Your task to perform on an android device: Turn on the flashlight Image 0: 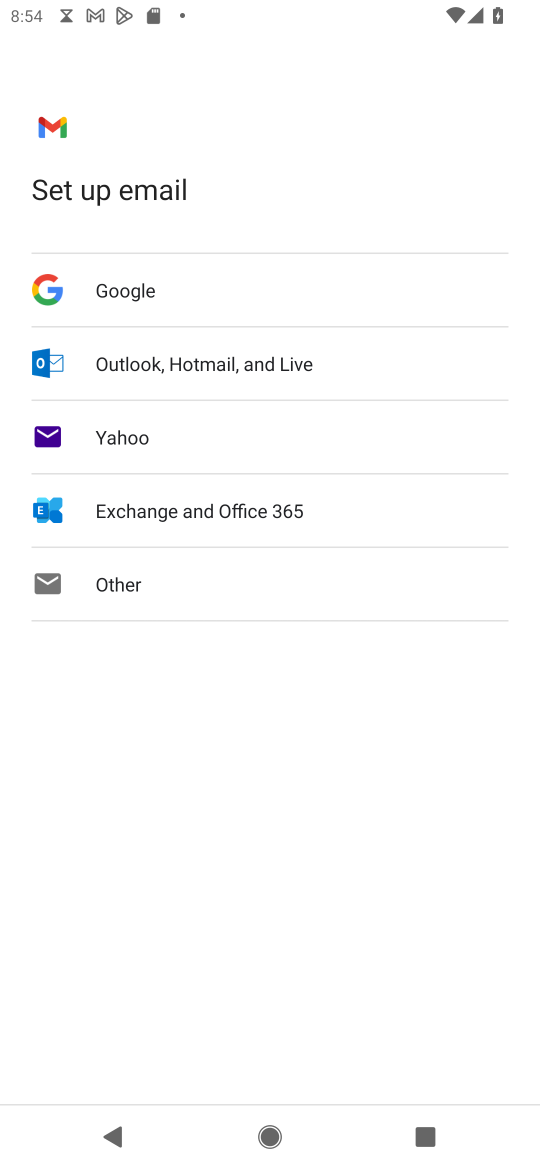
Step 0: press home button
Your task to perform on an android device: Turn on the flashlight Image 1: 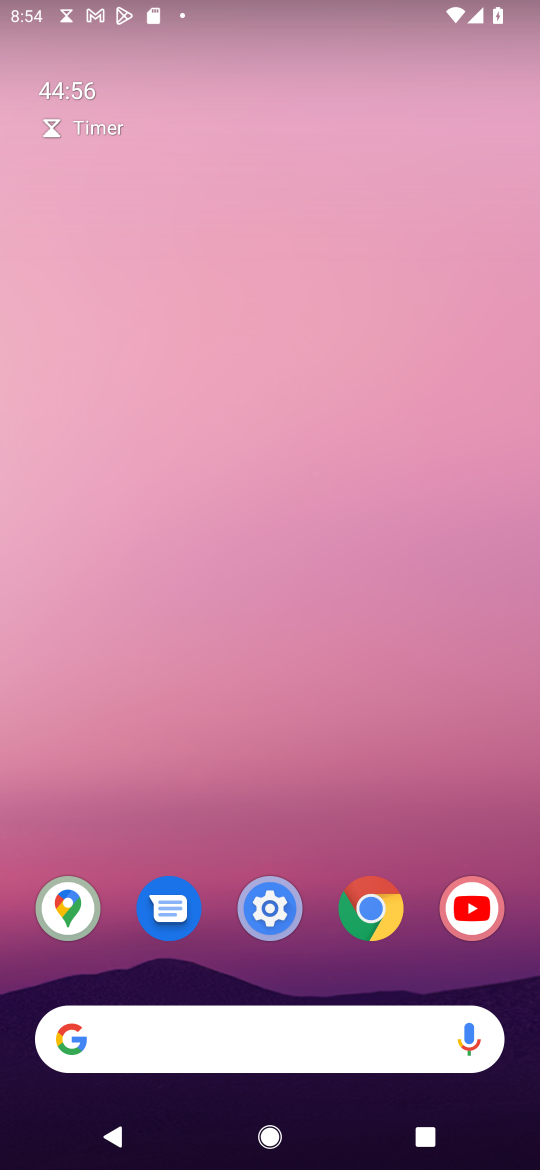
Step 1: drag from (178, 26) to (208, 785)
Your task to perform on an android device: Turn on the flashlight Image 2: 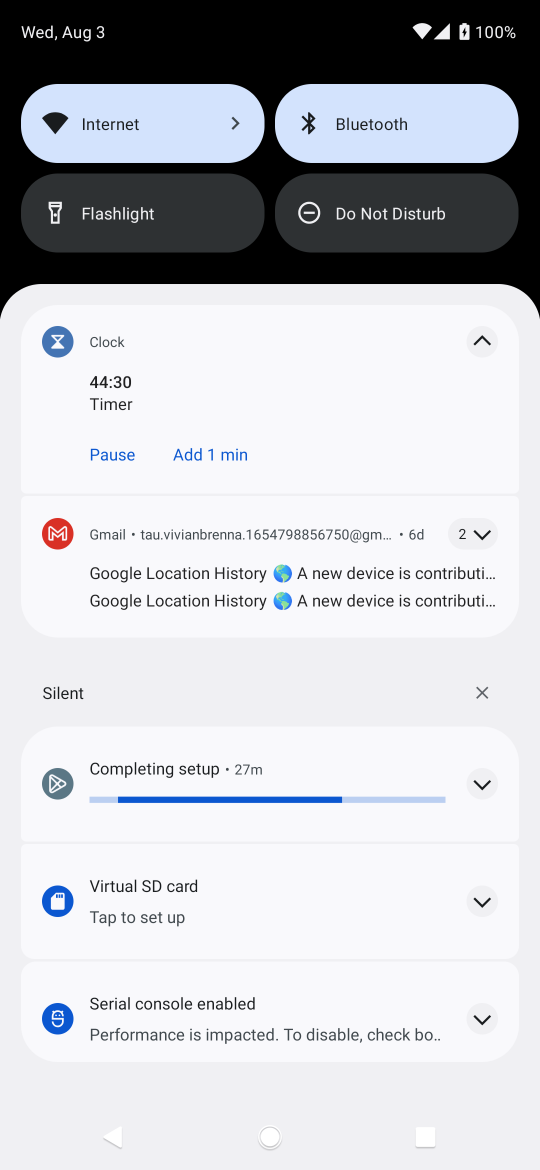
Step 2: click (158, 226)
Your task to perform on an android device: Turn on the flashlight Image 3: 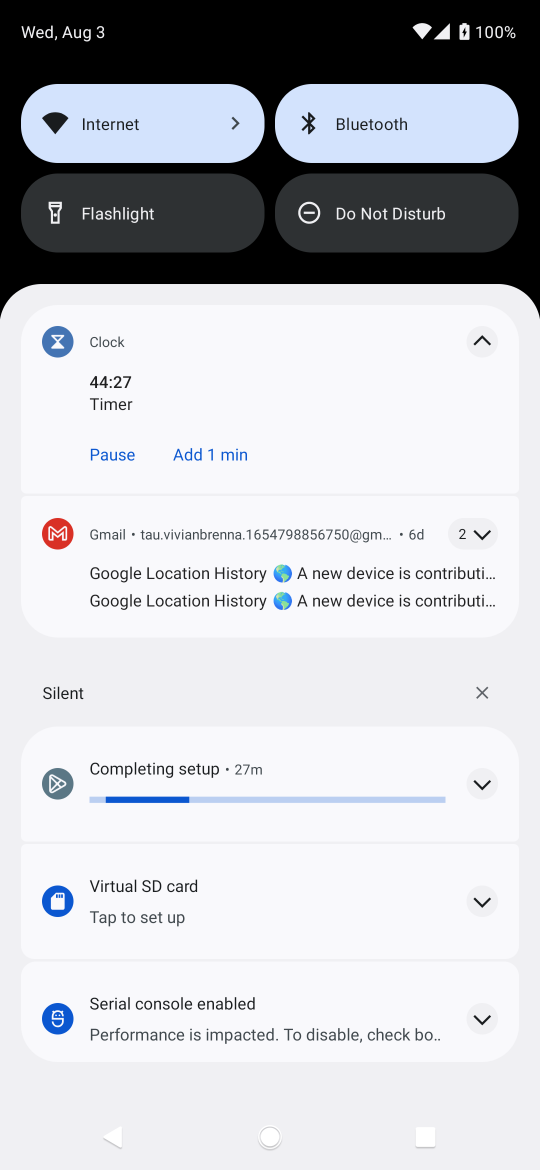
Step 3: task complete